Your task to perform on an android device: toggle javascript in the chrome app Image 0: 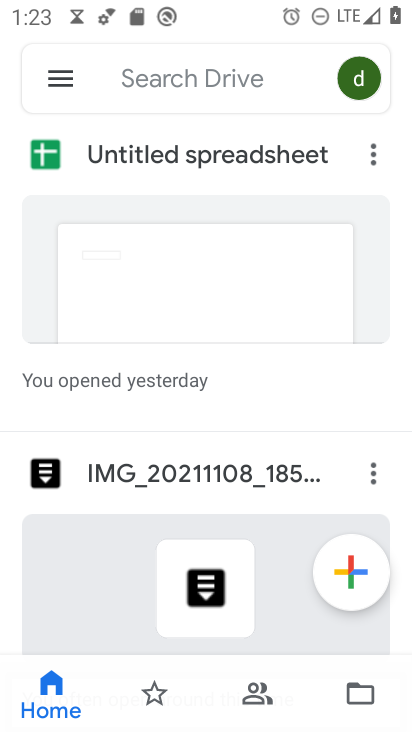
Step 0: press home button
Your task to perform on an android device: toggle javascript in the chrome app Image 1: 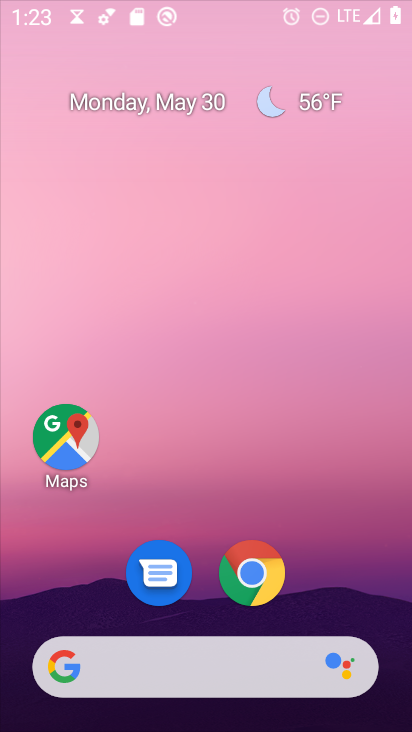
Step 1: drag from (267, 672) to (359, 61)
Your task to perform on an android device: toggle javascript in the chrome app Image 2: 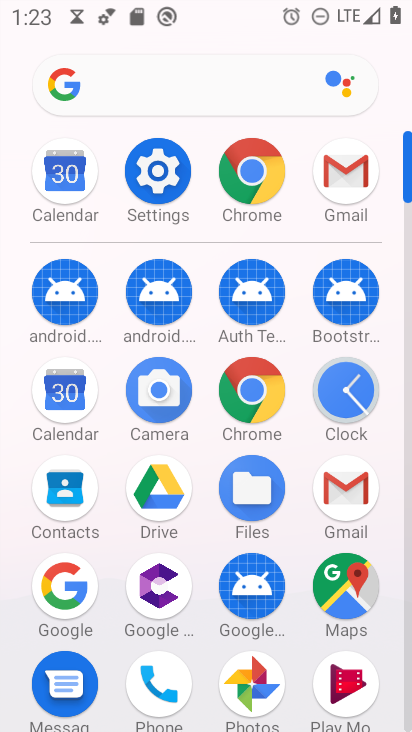
Step 2: click (273, 399)
Your task to perform on an android device: toggle javascript in the chrome app Image 3: 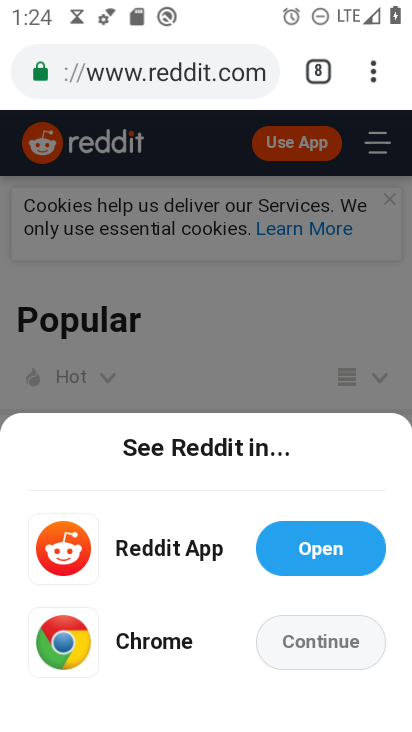
Step 3: drag from (370, 58) to (143, 616)
Your task to perform on an android device: toggle javascript in the chrome app Image 4: 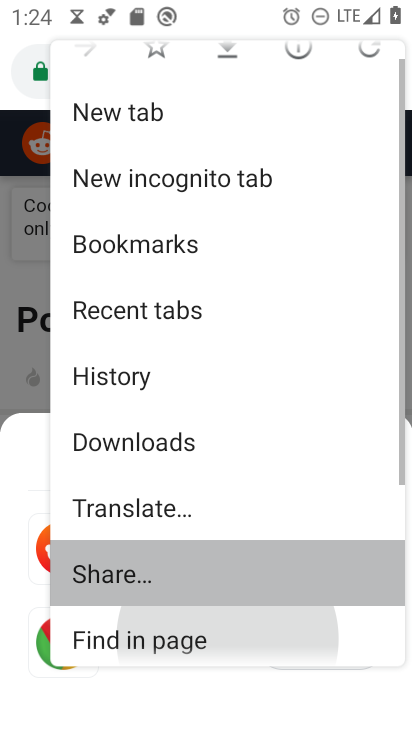
Step 4: click (128, 639)
Your task to perform on an android device: toggle javascript in the chrome app Image 5: 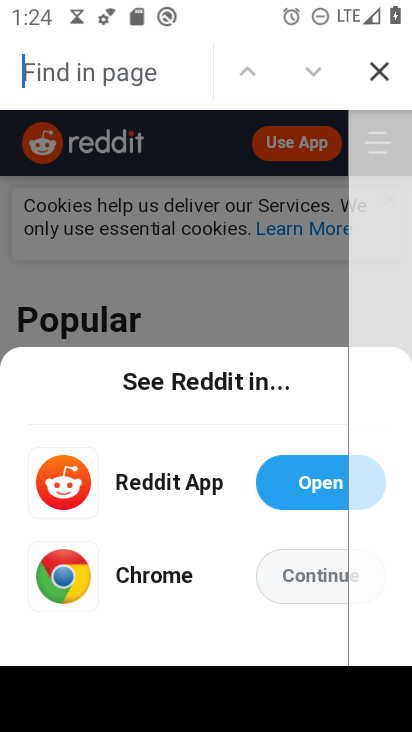
Step 5: press back button
Your task to perform on an android device: toggle javascript in the chrome app Image 6: 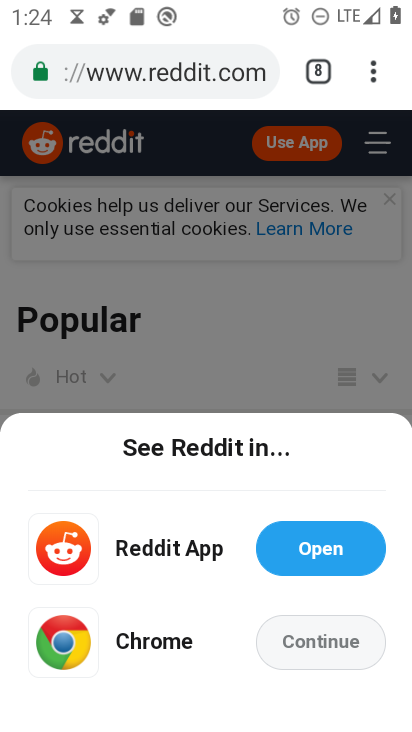
Step 6: drag from (361, 69) to (119, 566)
Your task to perform on an android device: toggle javascript in the chrome app Image 7: 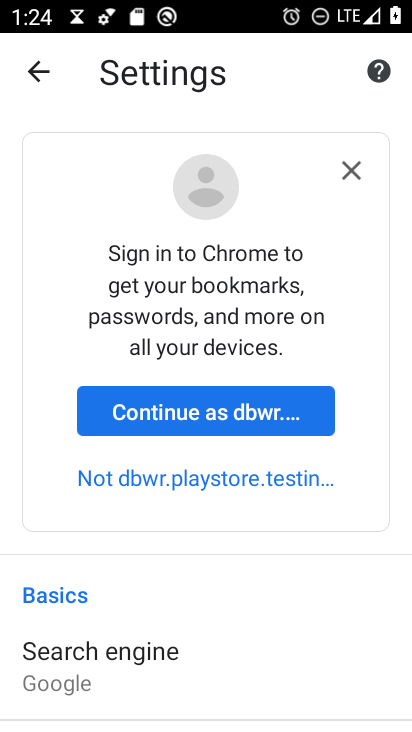
Step 7: drag from (266, 683) to (287, 56)
Your task to perform on an android device: toggle javascript in the chrome app Image 8: 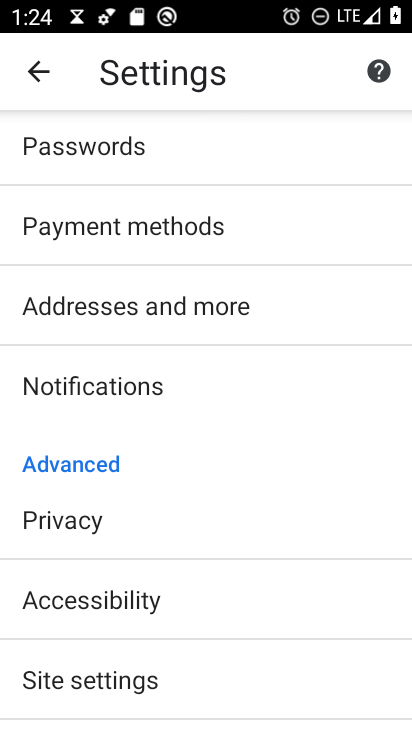
Step 8: drag from (211, 715) to (230, 169)
Your task to perform on an android device: toggle javascript in the chrome app Image 9: 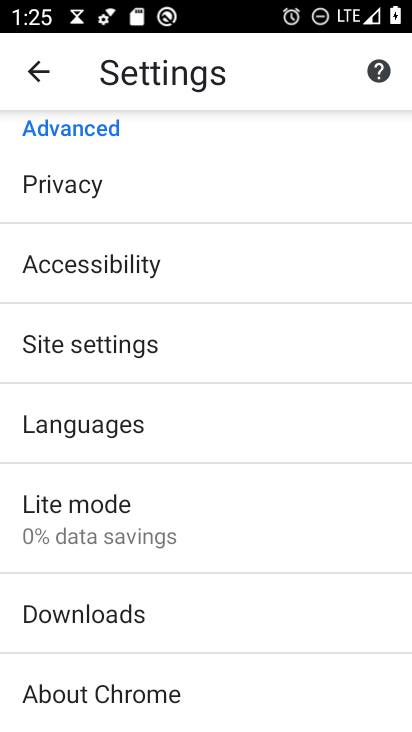
Step 9: click (162, 346)
Your task to perform on an android device: toggle javascript in the chrome app Image 10: 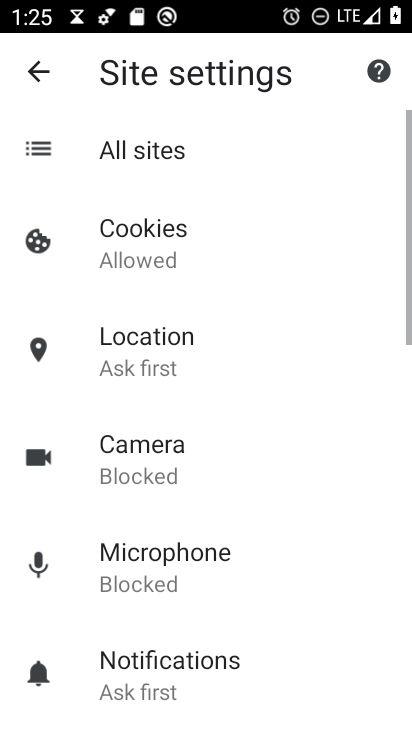
Step 10: drag from (126, 653) to (187, 96)
Your task to perform on an android device: toggle javascript in the chrome app Image 11: 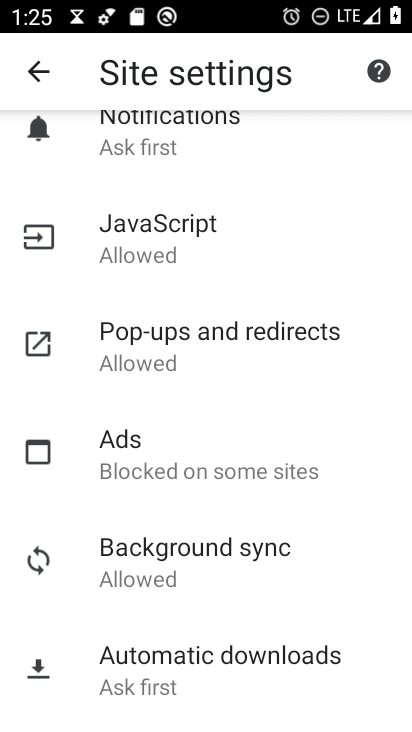
Step 11: click (216, 252)
Your task to perform on an android device: toggle javascript in the chrome app Image 12: 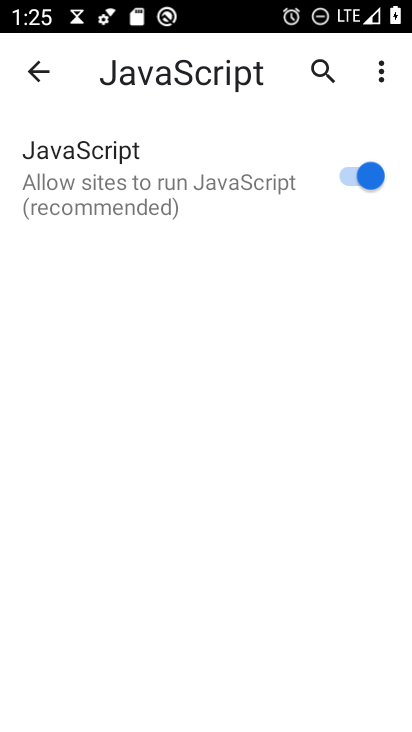
Step 12: click (337, 168)
Your task to perform on an android device: toggle javascript in the chrome app Image 13: 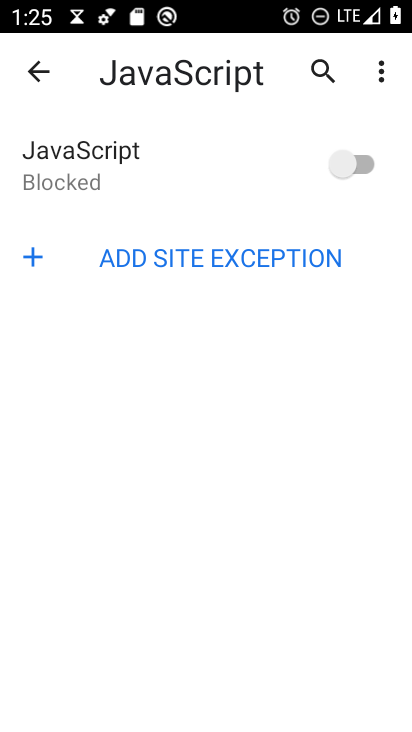
Step 13: task complete